Your task to perform on an android device: Go to settings Image 0: 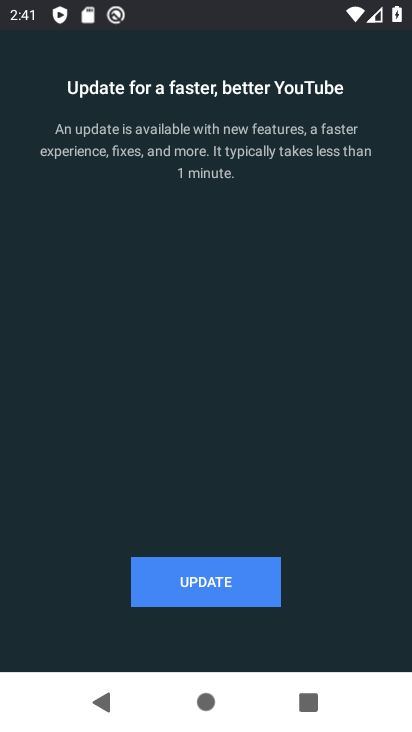
Step 0: press home button
Your task to perform on an android device: Go to settings Image 1: 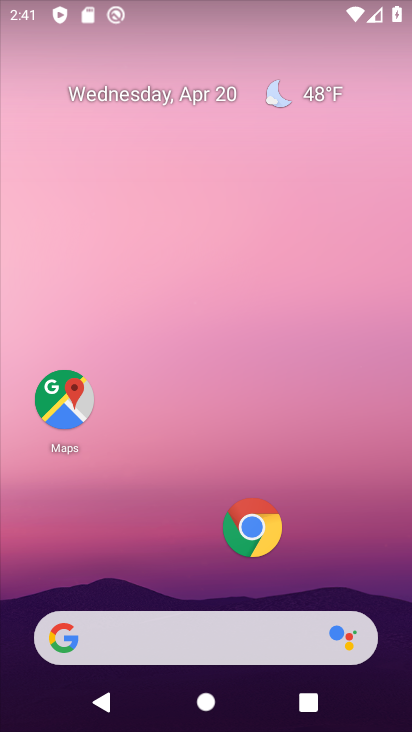
Step 1: drag from (152, 589) to (138, 0)
Your task to perform on an android device: Go to settings Image 2: 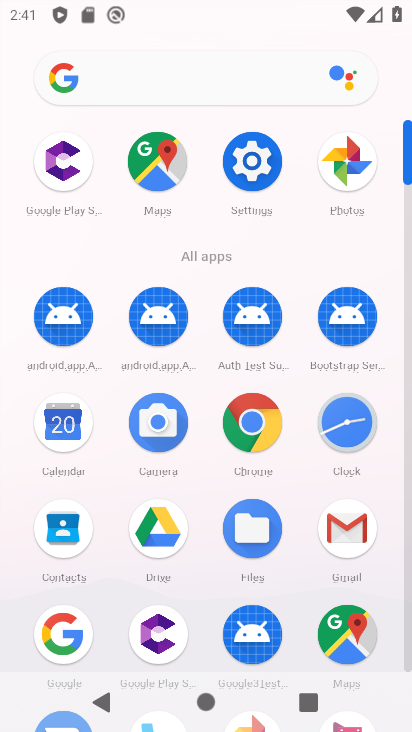
Step 2: click (271, 160)
Your task to perform on an android device: Go to settings Image 3: 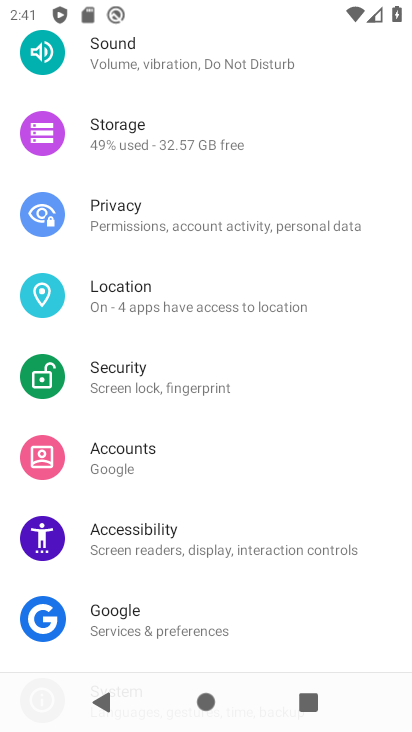
Step 3: task complete